Your task to perform on an android device: Search for vegetarian restaurants on Maps Image 0: 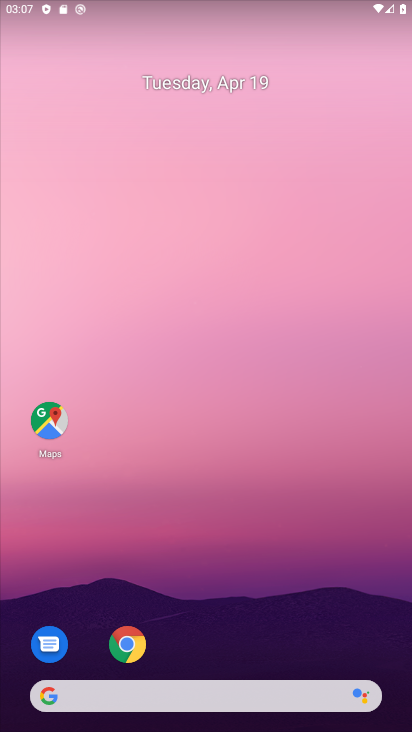
Step 0: click (46, 416)
Your task to perform on an android device: Search for vegetarian restaurants on Maps Image 1: 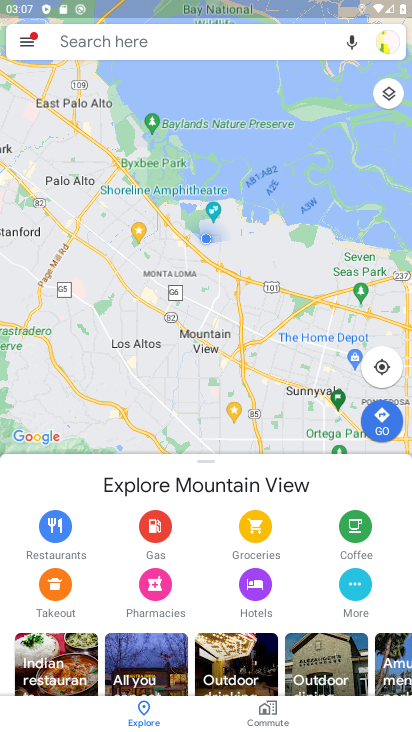
Step 1: click (94, 39)
Your task to perform on an android device: Search for vegetarian restaurants on Maps Image 2: 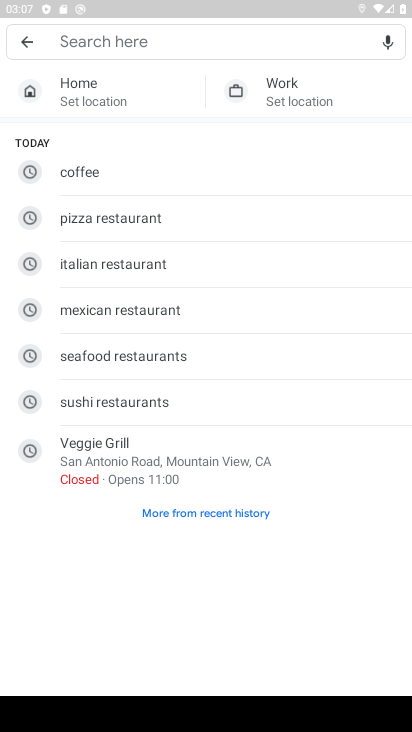
Step 2: type "vegetarian restaurants"
Your task to perform on an android device: Search for vegetarian restaurants on Maps Image 3: 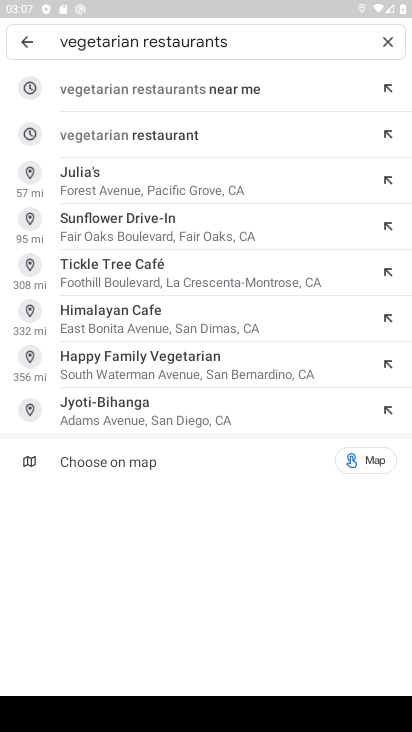
Step 3: click (126, 131)
Your task to perform on an android device: Search for vegetarian restaurants on Maps Image 4: 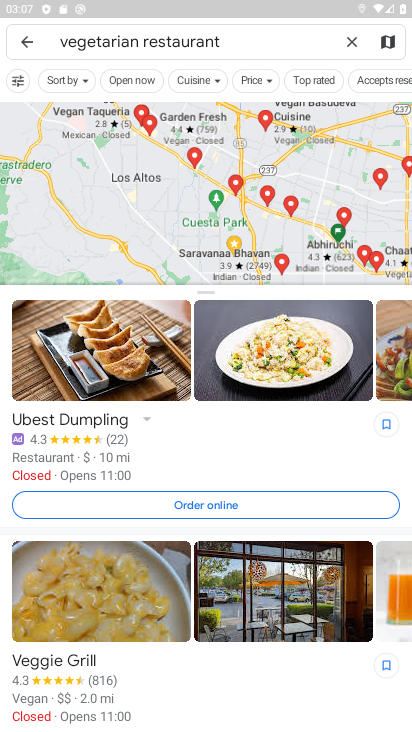
Step 4: task complete